Your task to perform on an android device: turn on bluetooth scan Image 0: 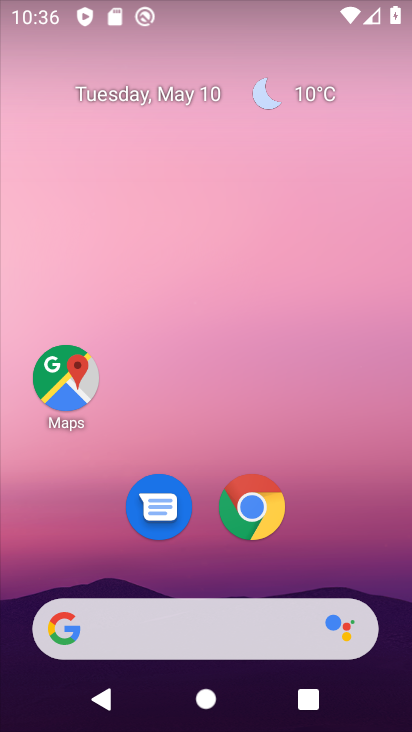
Step 0: drag from (228, 724) to (238, 145)
Your task to perform on an android device: turn on bluetooth scan Image 1: 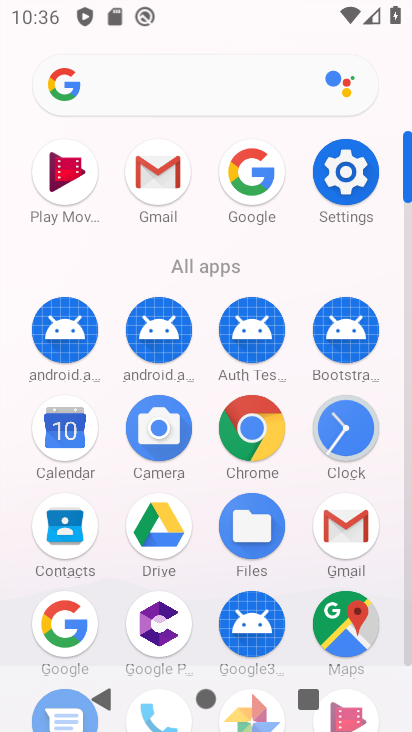
Step 1: click (346, 169)
Your task to perform on an android device: turn on bluetooth scan Image 2: 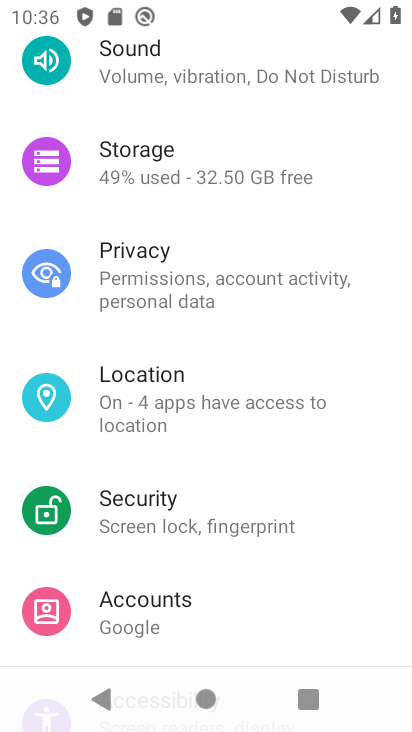
Step 2: click (144, 396)
Your task to perform on an android device: turn on bluetooth scan Image 3: 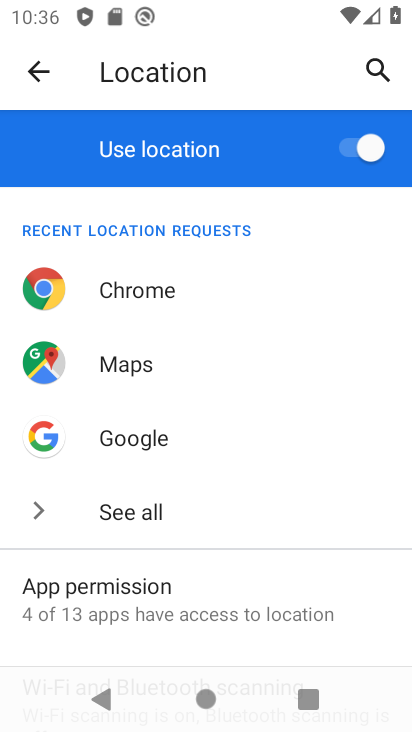
Step 3: drag from (200, 635) to (206, 325)
Your task to perform on an android device: turn on bluetooth scan Image 4: 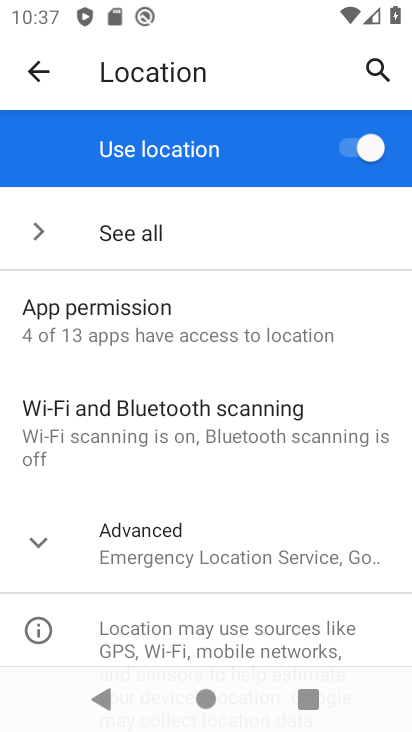
Step 4: click (151, 418)
Your task to perform on an android device: turn on bluetooth scan Image 5: 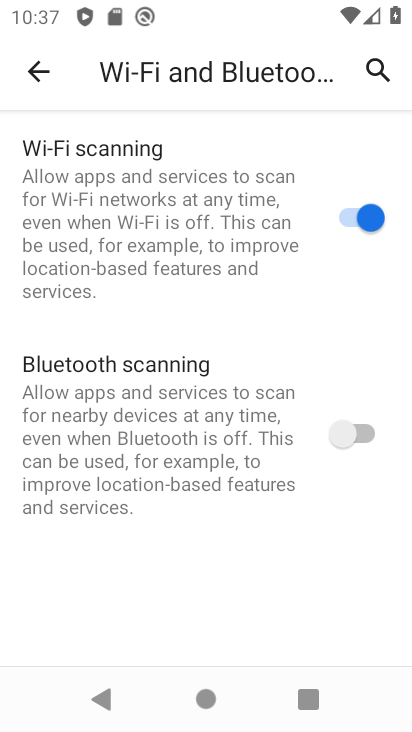
Step 5: click (362, 427)
Your task to perform on an android device: turn on bluetooth scan Image 6: 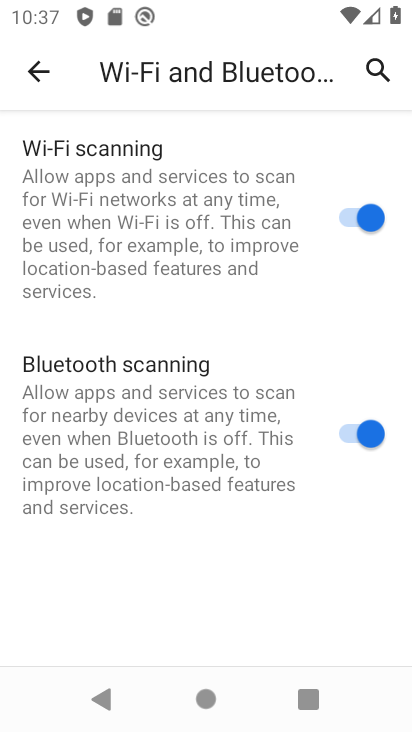
Step 6: task complete